Your task to perform on an android device: add a label to a message in the gmail app Image 0: 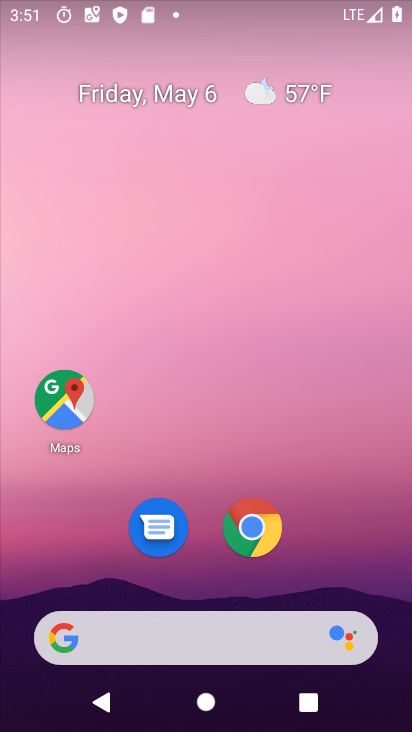
Step 0: drag from (308, 595) to (339, 71)
Your task to perform on an android device: add a label to a message in the gmail app Image 1: 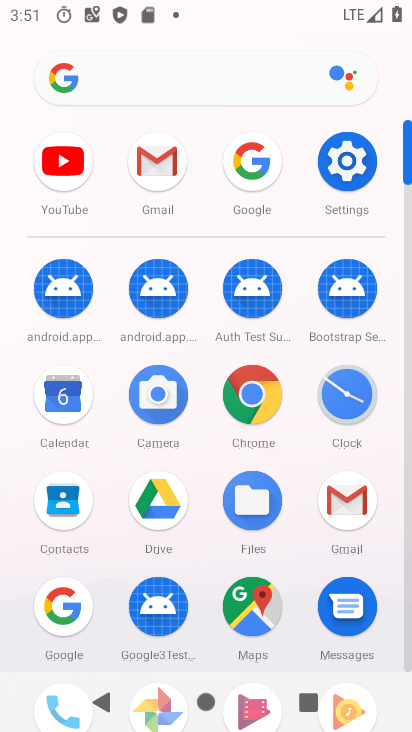
Step 1: click (156, 168)
Your task to perform on an android device: add a label to a message in the gmail app Image 2: 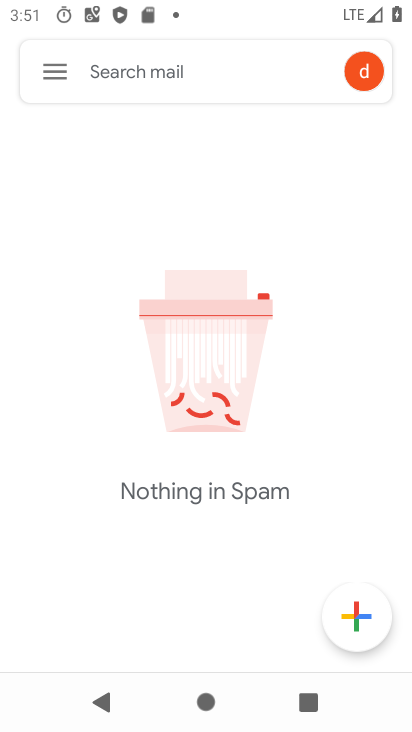
Step 2: click (48, 74)
Your task to perform on an android device: add a label to a message in the gmail app Image 3: 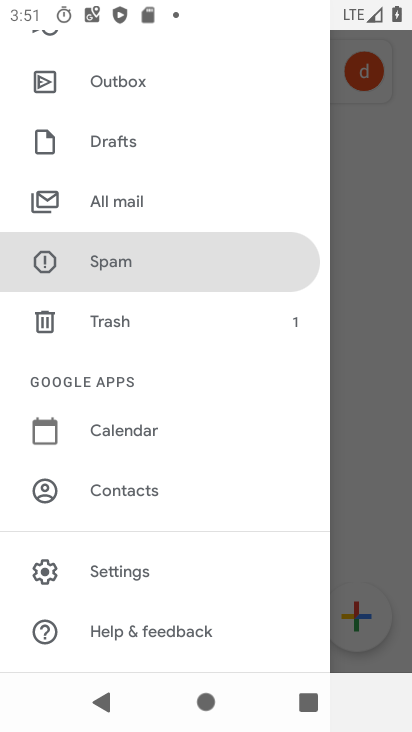
Step 3: drag from (120, 170) to (141, 413)
Your task to perform on an android device: add a label to a message in the gmail app Image 4: 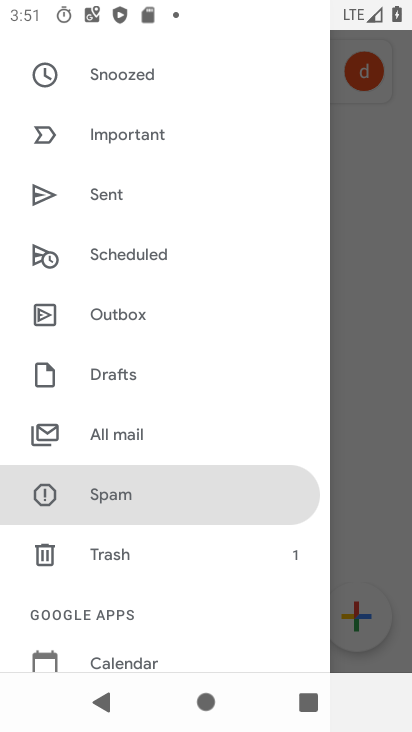
Step 4: click (102, 431)
Your task to perform on an android device: add a label to a message in the gmail app Image 5: 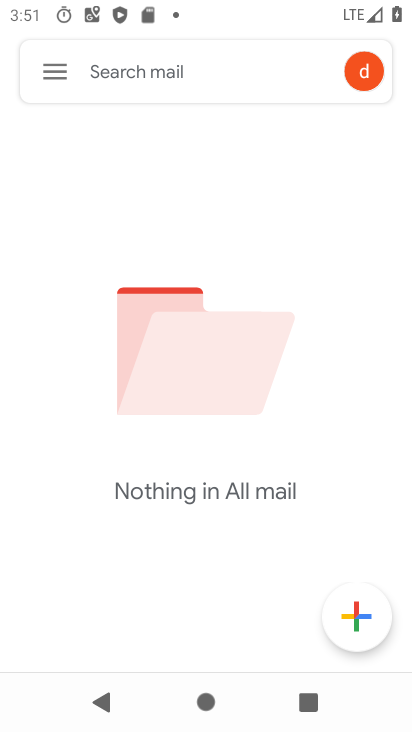
Step 5: task complete